Your task to perform on an android device: turn off priority inbox in the gmail app Image 0: 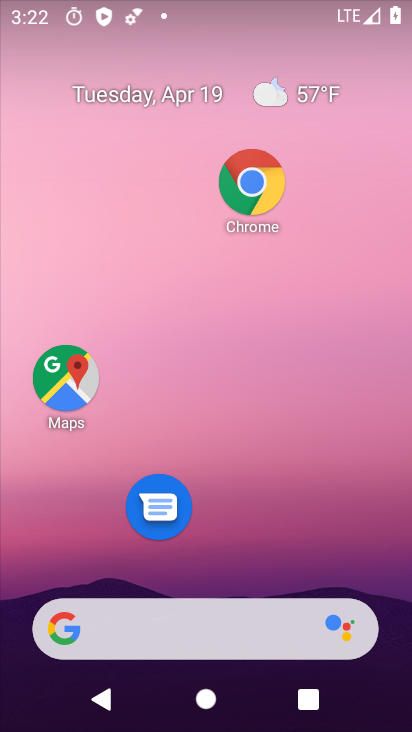
Step 0: drag from (208, 599) to (260, 263)
Your task to perform on an android device: turn off priority inbox in the gmail app Image 1: 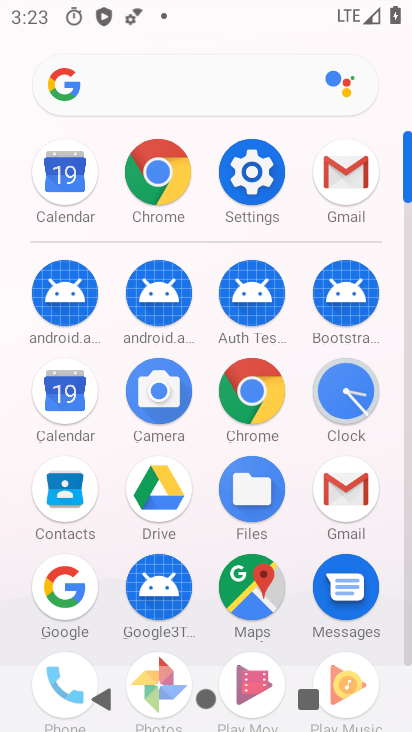
Step 1: click (358, 484)
Your task to perform on an android device: turn off priority inbox in the gmail app Image 2: 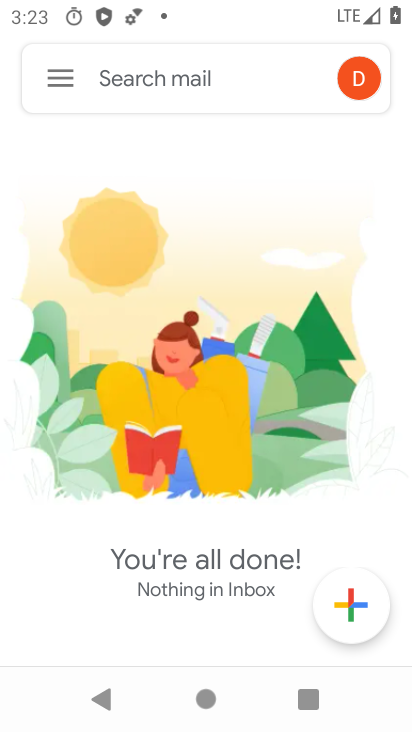
Step 2: click (67, 90)
Your task to perform on an android device: turn off priority inbox in the gmail app Image 3: 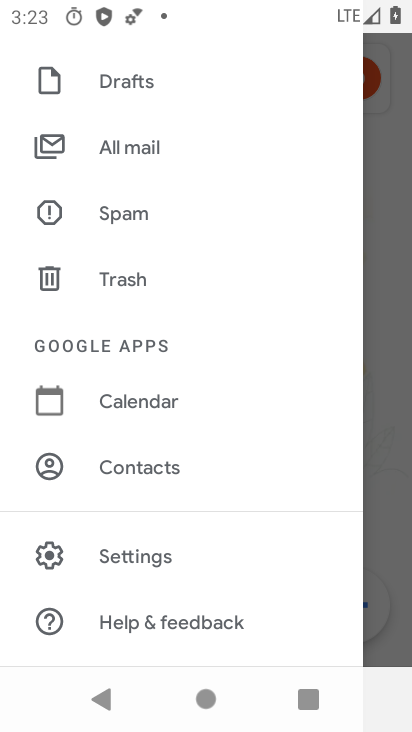
Step 3: click (133, 563)
Your task to perform on an android device: turn off priority inbox in the gmail app Image 4: 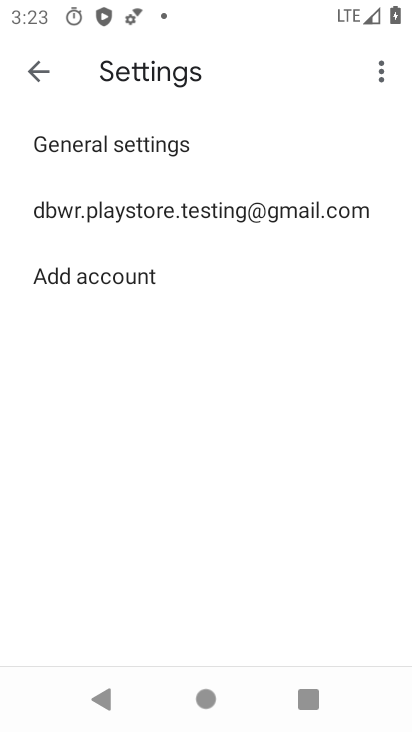
Step 4: click (248, 213)
Your task to perform on an android device: turn off priority inbox in the gmail app Image 5: 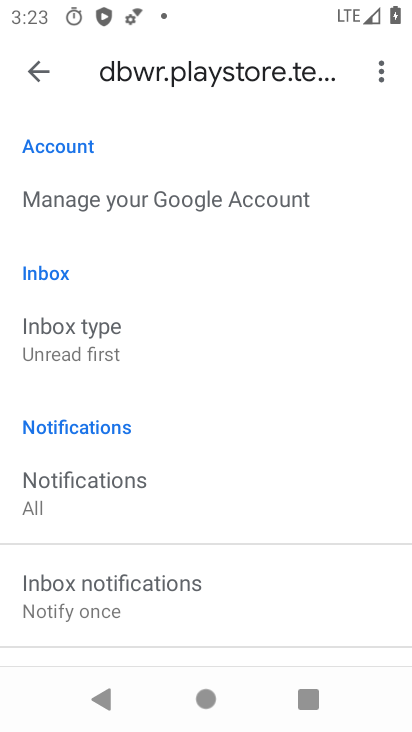
Step 5: click (165, 348)
Your task to perform on an android device: turn off priority inbox in the gmail app Image 6: 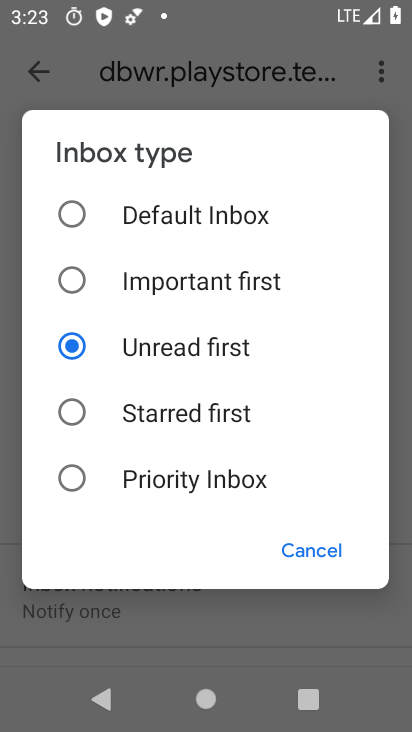
Step 6: task complete